Your task to perform on an android device: check google app version Image 0: 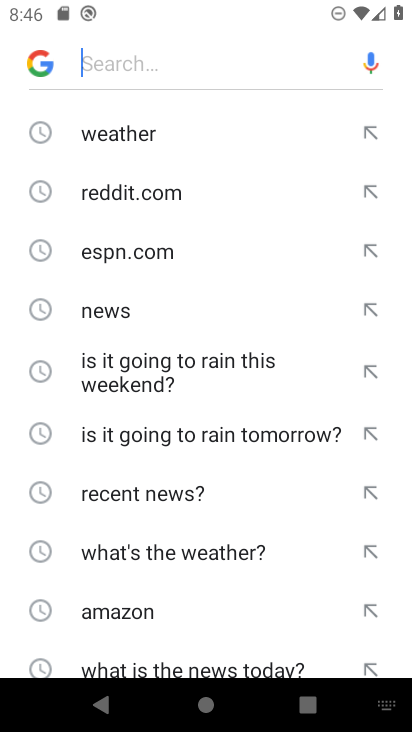
Step 0: press home button
Your task to perform on an android device: check google app version Image 1: 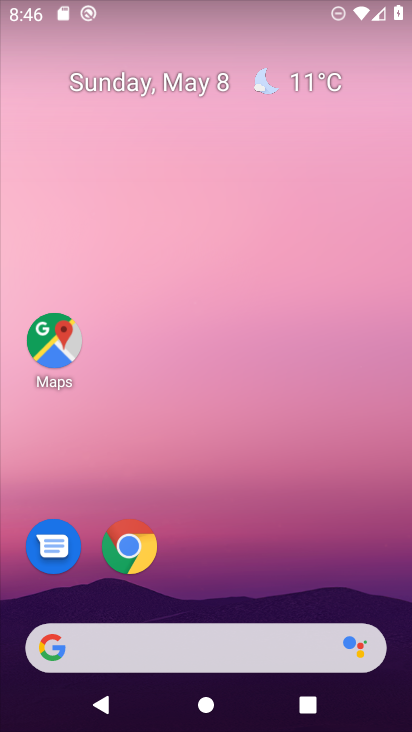
Step 1: click (48, 647)
Your task to perform on an android device: check google app version Image 2: 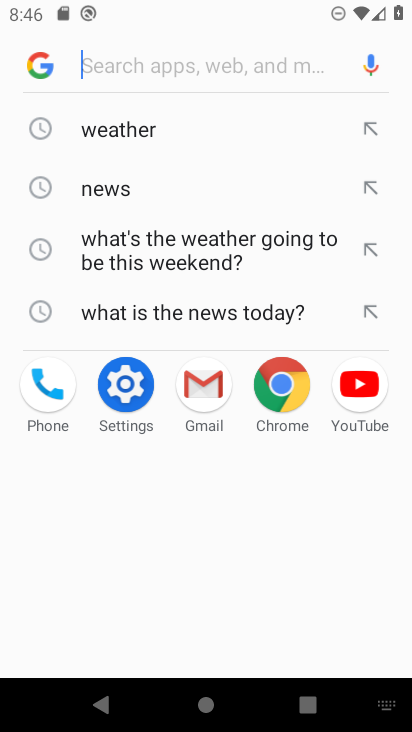
Step 2: click (40, 69)
Your task to perform on an android device: check google app version Image 3: 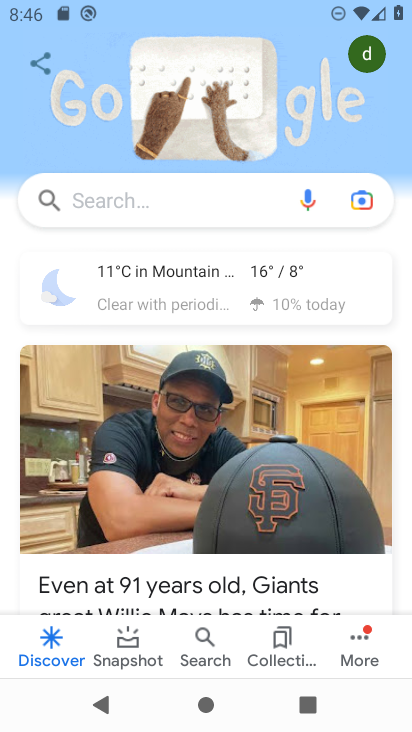
Step 3: click (352, 630)
Your task to perform on an android device: check google app version Image 4: 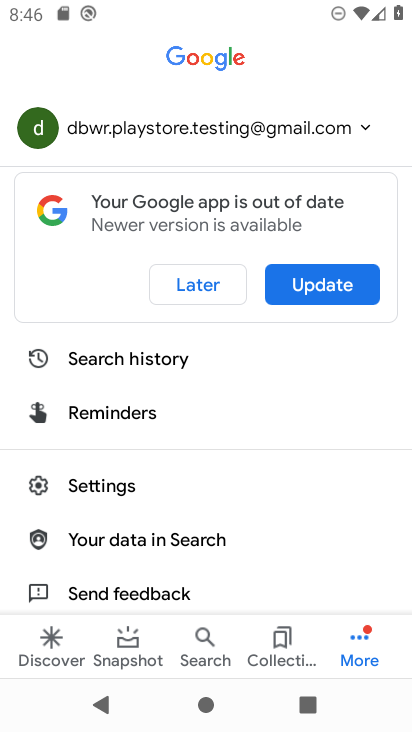
Step 4: click (121, 476)
Your task to perform on an android device: check google app version Image 5: 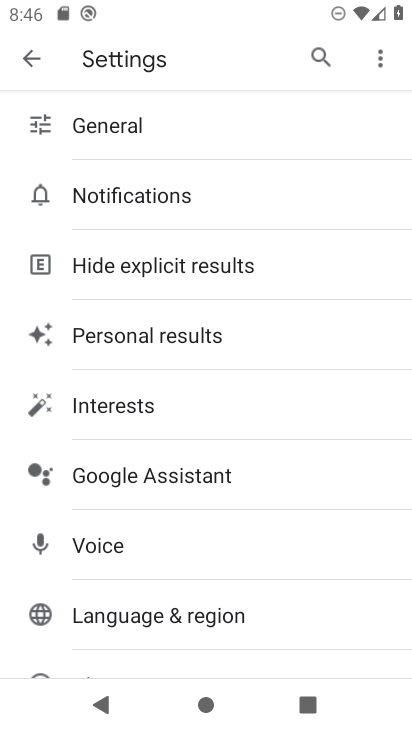
Step 5: drag from (105, 568) to (139, 279)
Your task to perform on an android device: check google app version Image 6: 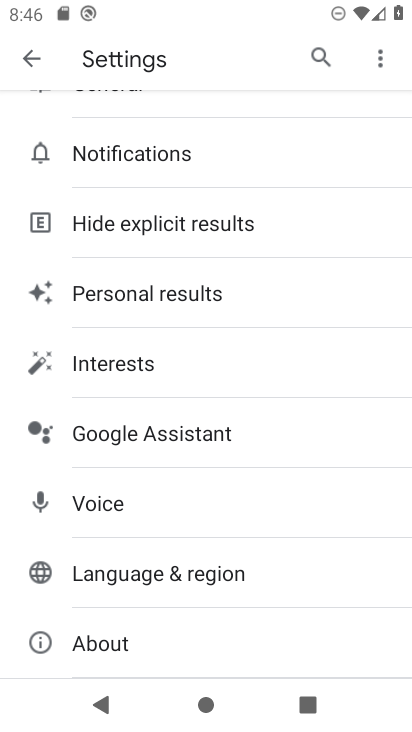
Step 6: click (104, 631)
Your task to perform on an android device: check google app version Image 7: 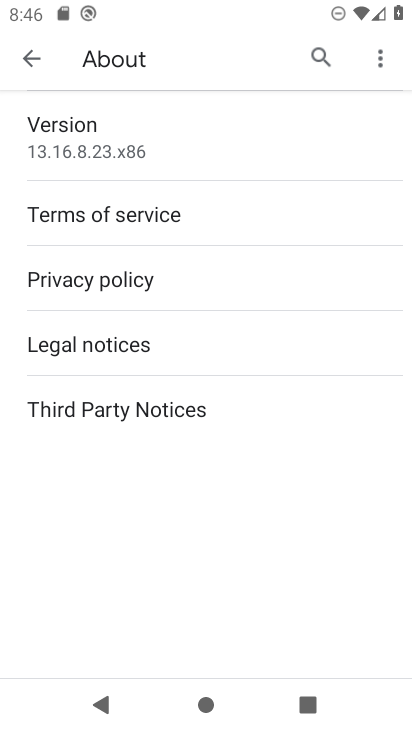
Step 7: task complete